Your task to perform on an android device: Open Google Maps and go to "Timeline" Image 0: 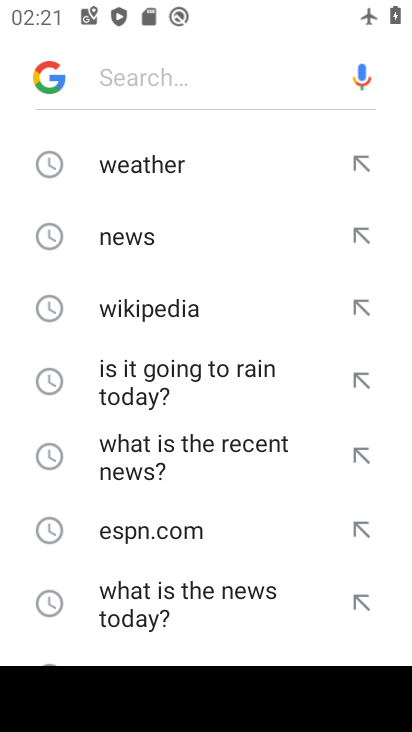
Step 0: press back button
Your task to perform on an android device: Open Google Maps and go to "Timeline" Image 1: 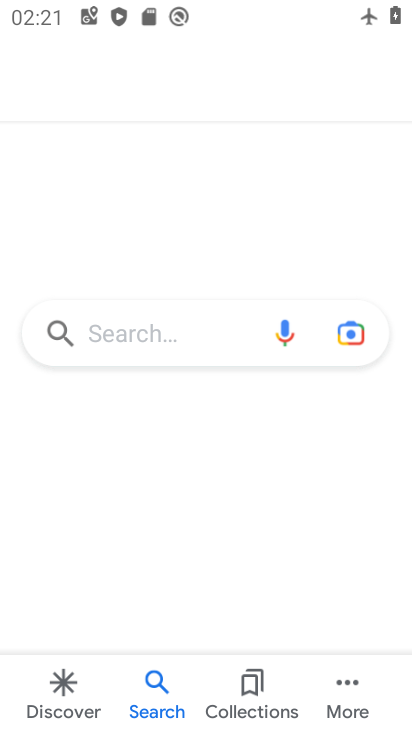
Step 1: press back button
Your task to perform on an android device: Open Google Maps and go to "Timeline" Image 2: 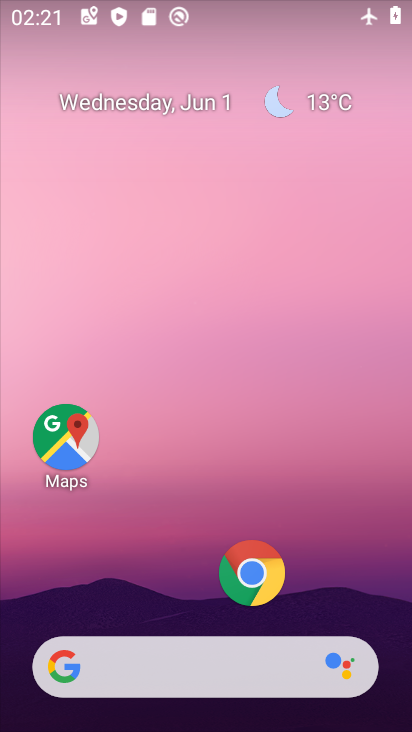
Step 2: drag from (240, 633) to (118, 3)
Your task to perform on an android device: Open Google Maps and go to "Timeline" Image 3: 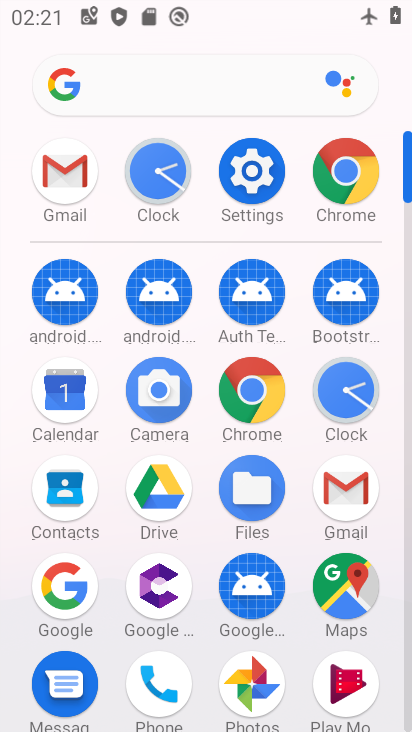
Step 3: click (341, 578)
Your task to perform on an android device: Open Google Maps and go to "Timeline" Image 4: 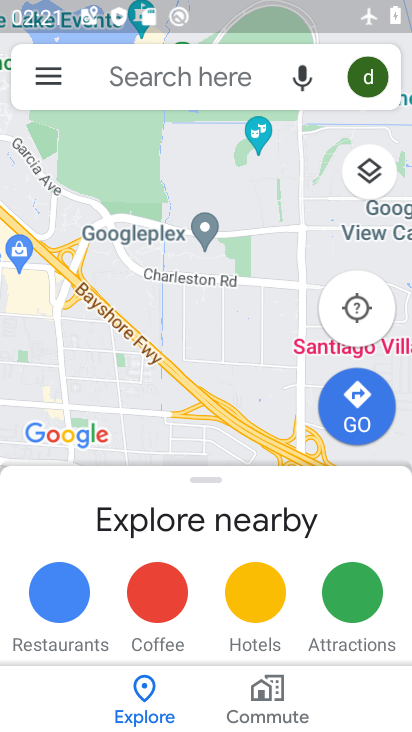
Step 4: click (47, 60)
Your task to perform on an android device: Open Google Maps and go to "Timeline" Image 5: 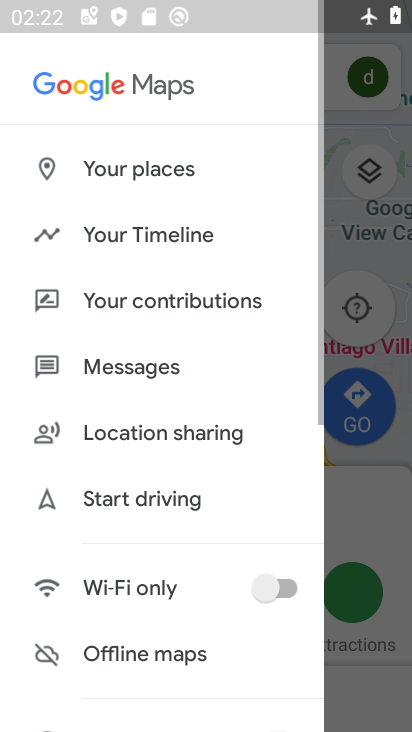
Step 5: click (146, 234)
Your task to perform on an android device: Open Google Maps and go to "Timeline" Image 6: 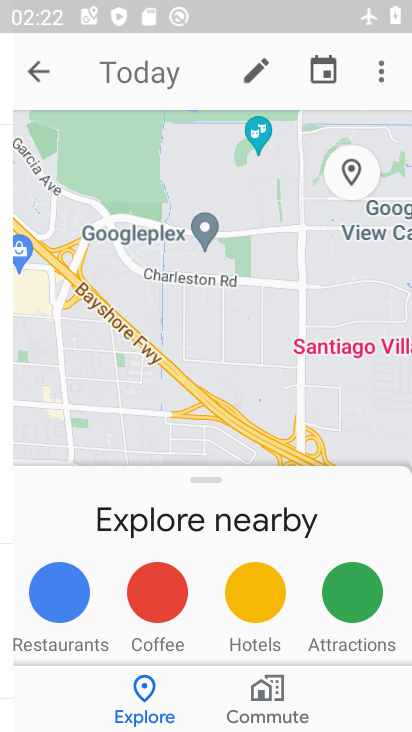
Step 6: task complete